Your task to perform on an android device: Open Google Image 0: 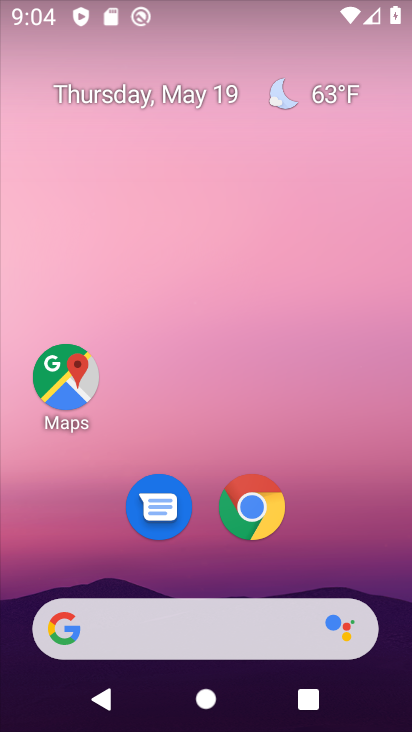
Step 0: drag from (371, 529) to (330, 75)
Your task to perform on an android device: Open Google Image 1: 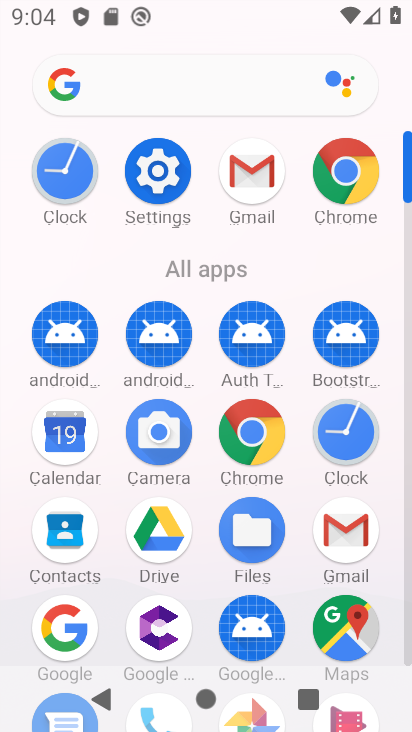
Step 1: click (78, 636)
Your task to perform on an android device: Open Google Image 2: 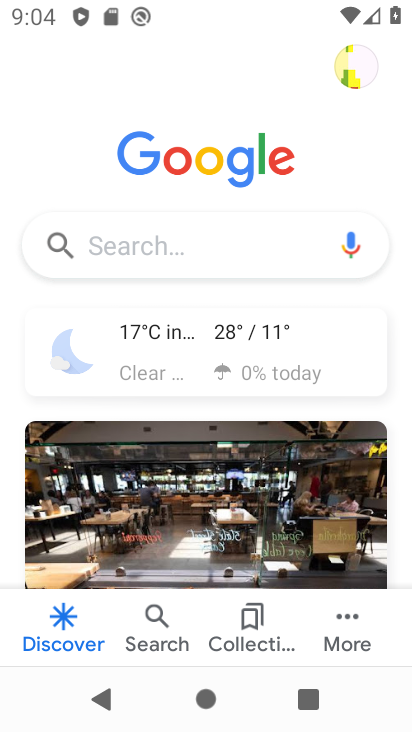
Step 2: task complete